Your task to perform on an android device: change the upload size in google photos Image 0: 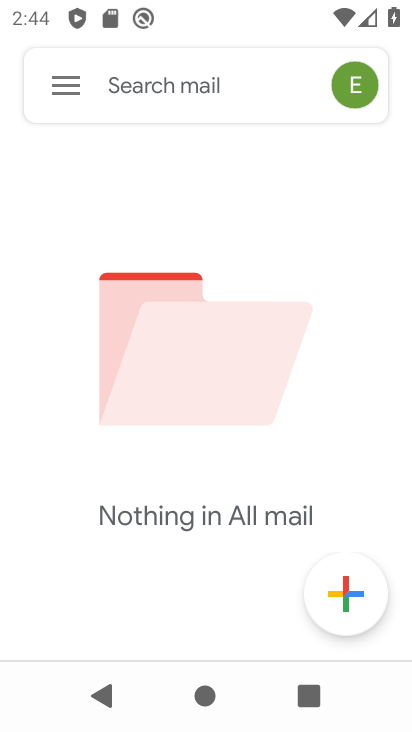
Step 0: press home button
Your task to perform on an android device: change the upload size in google photos Image 1: 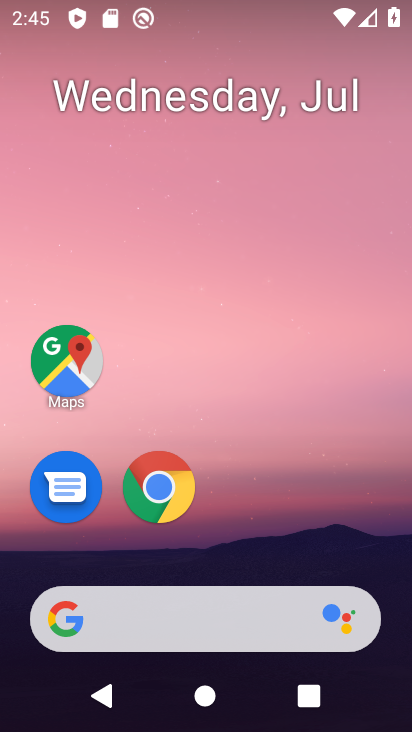
Step 1: drag from (320, 560) to (292, 44)
Your task to perform on an android device: change the upload size in google photos Image 2: 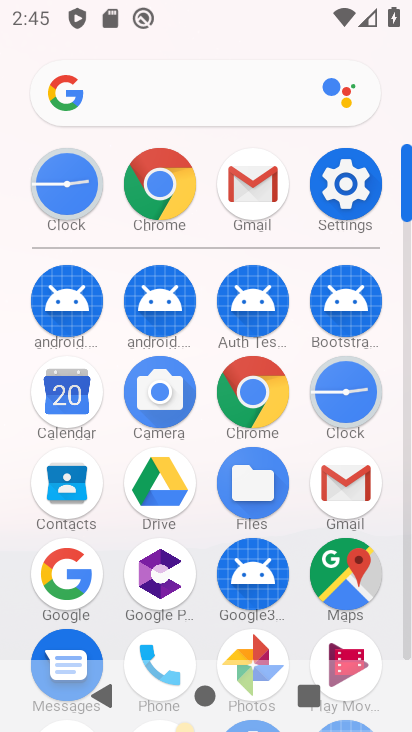
Step 2: click (263, 647)
Your task to perform on an android device: change the upload size in google photos Image 3: 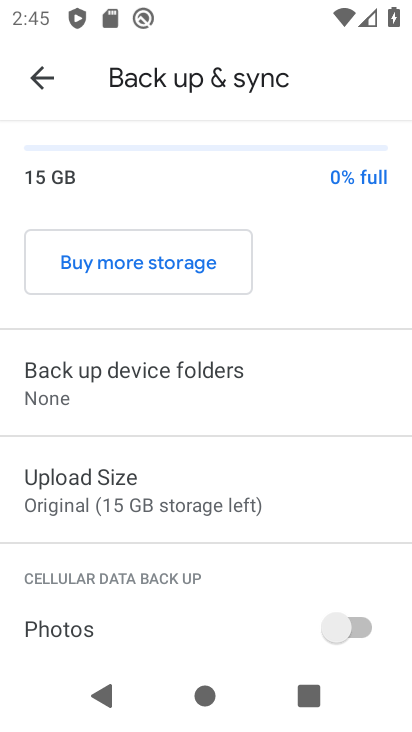
Step 3: click (251, 518)
Your task to perform on an android device: change the upload size in google photos Image 4: 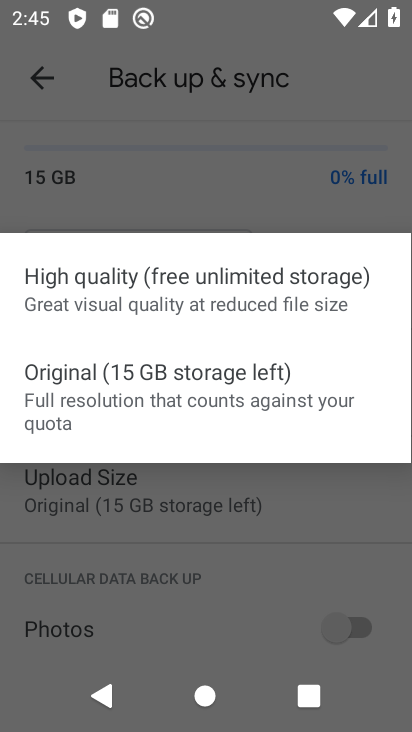
Step 4: click (211, 300)
Your task to perform on an android device: change the upload size in google photos Image 5: 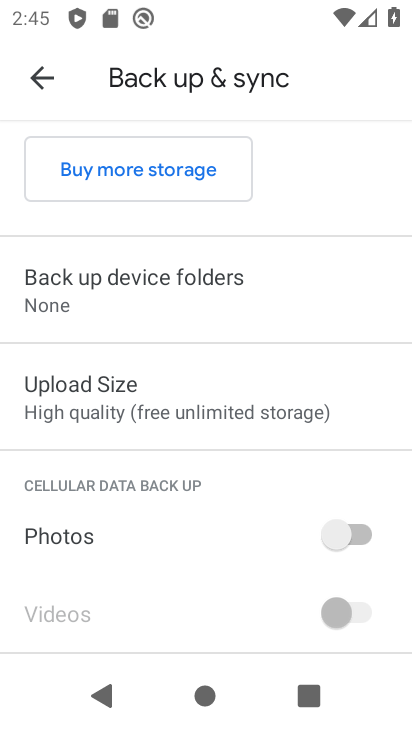
Step 5: task complete